Your task to perform on an android device: toggle show notifications on the lock screen Image 0: 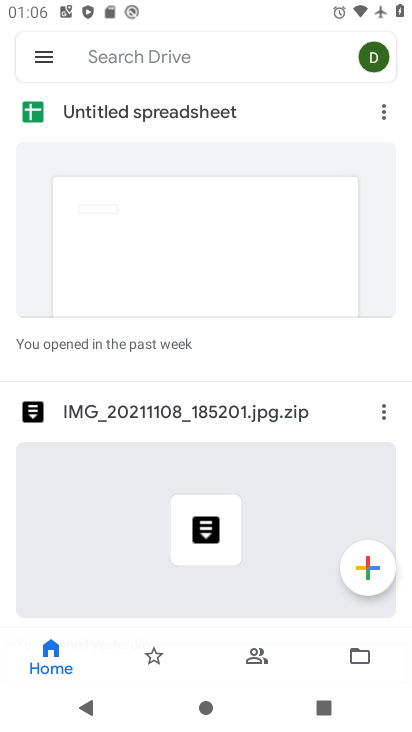
Step 0: press home button
Your task to perform on an android device: toggle show notifications on the lock screen Image 1: 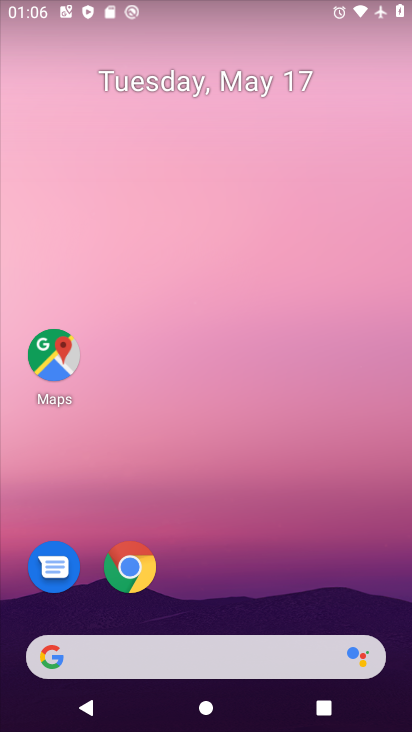
Step 1: drag from (315, 530) to (187, 64)
Your task to perform on an android device: toggle show notifications on the lock screen Image 2: 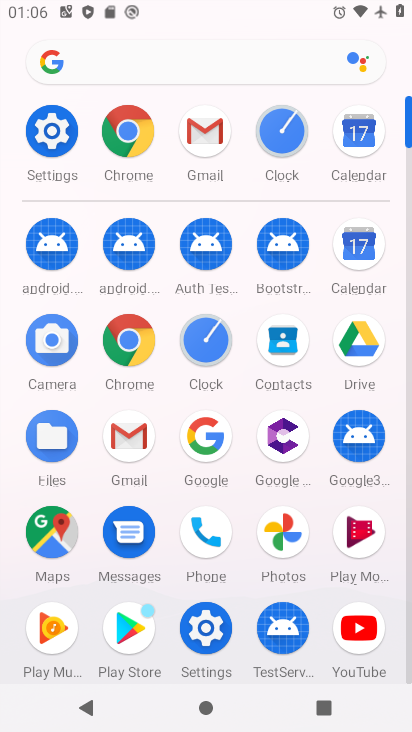
Step 2: click (61, 135)
Your task to perform on an android device: toggle show notifications on the lock screen Image 3: 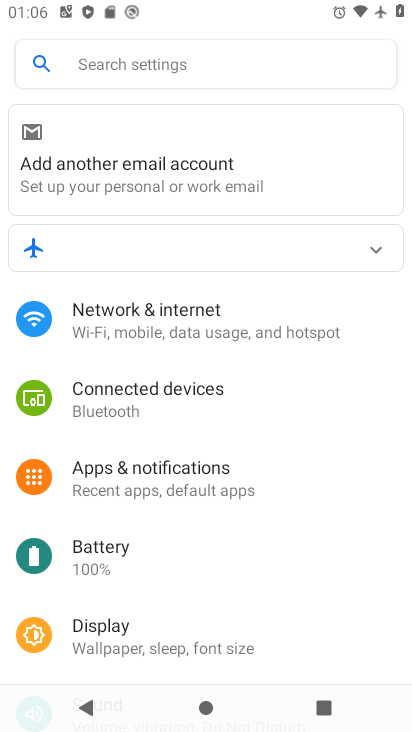
Step 3: drag from (244, 576) to (185, 357)
Your task to perform on an android device: toggle show notifications on the lock screen Image 4: 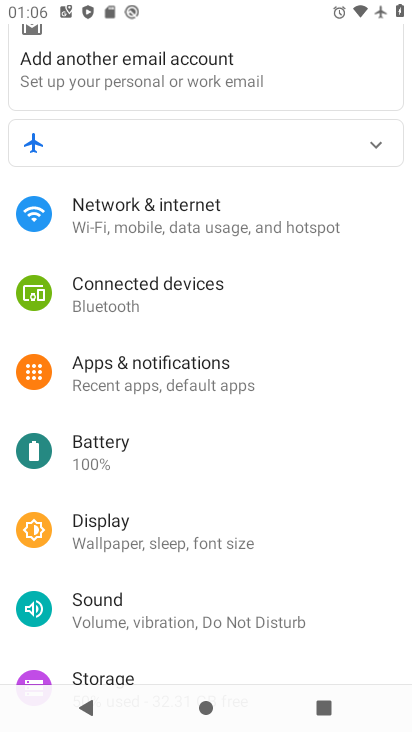
Step 4: click (176, 368)
Your task to perform on an android device: toggle show notifications on the lock screen Image 5: 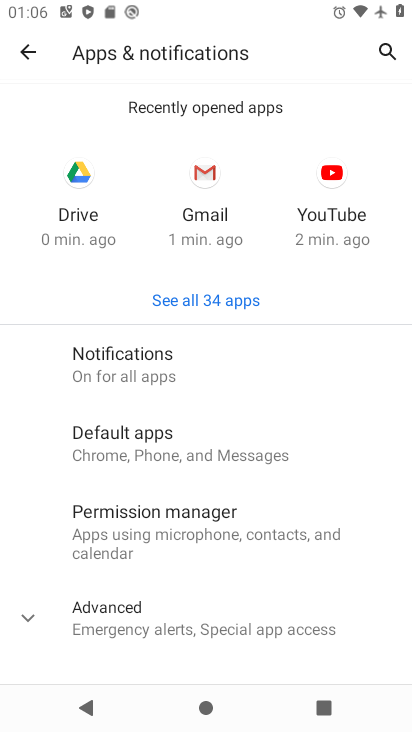
Step 5: click (127, 344)
Your task to perform on an android device: toggle show notifications on the lock screen Image 6: 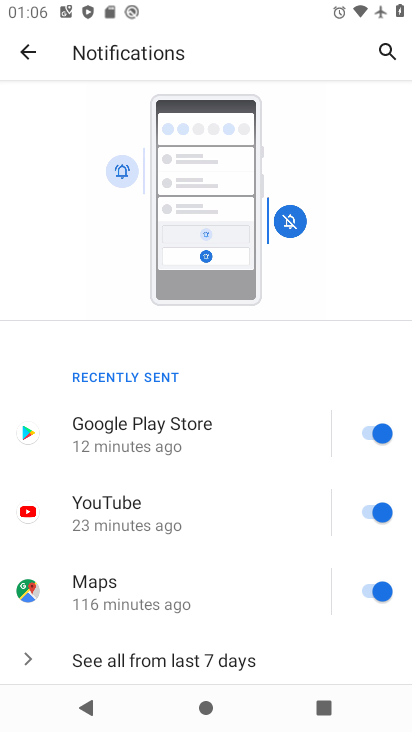
Step 6: drag from (277, 560) to (232, 260)
Your task to perform on an android device: toggle show notifications on the lock screen Image 7: 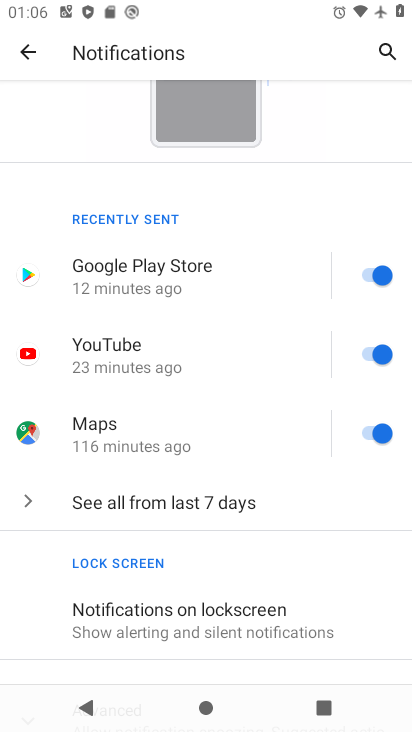
Step 7: drag from (329, 562) to (303, 381)
Your task to perform on an android device: toggle show notifications on the lock screen Image 8: 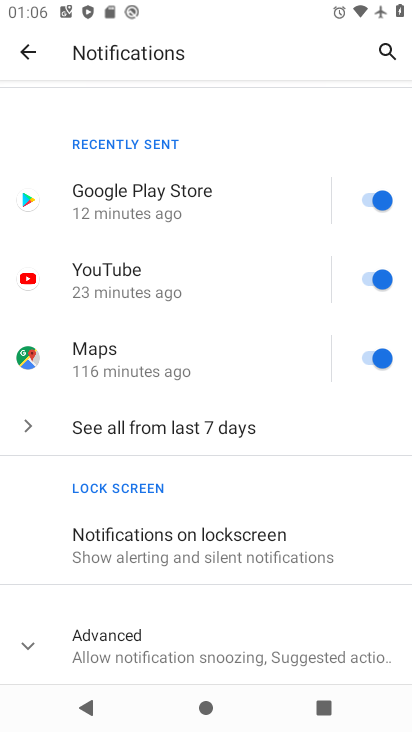
Step 8: click (169, 539)
Your task to perform on an android device: toggle show notifications on the lock screen Image 9: 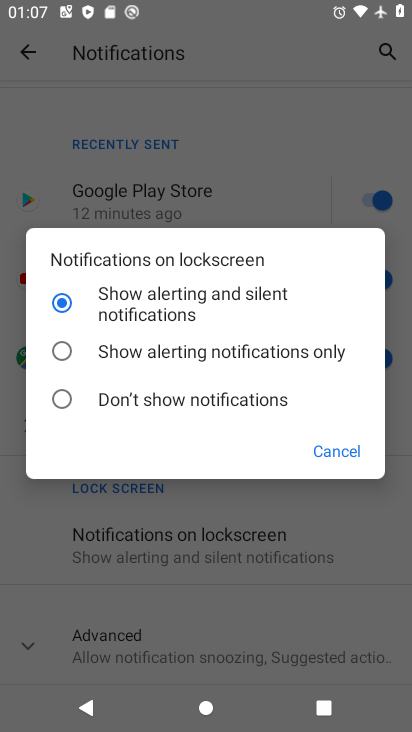
Step 9: click (62, 394)
Your task to perform on an android device: toggle show notifications on the lock screen Image 10: 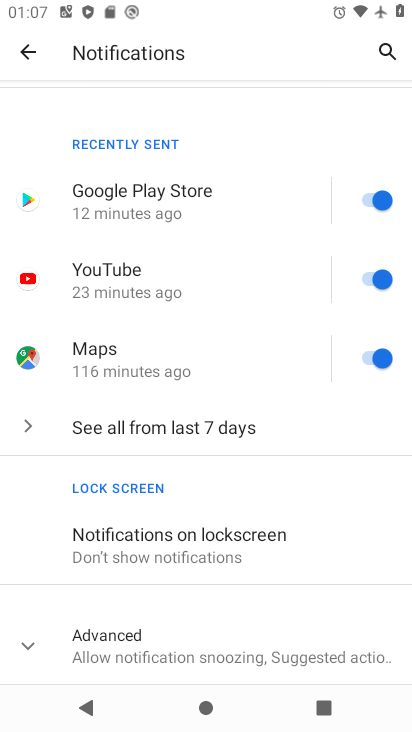
Step 10: task complete